Your task to perform on an android device: turn on translation in the chrome app Image 0: 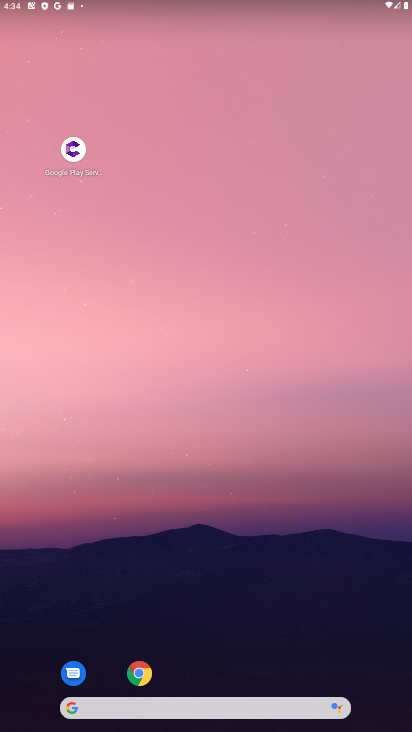
Step 0: drag from (284, 627) to (222, 42)
Your task to perform on an android device: turn on translation in the chrome app Image 1: 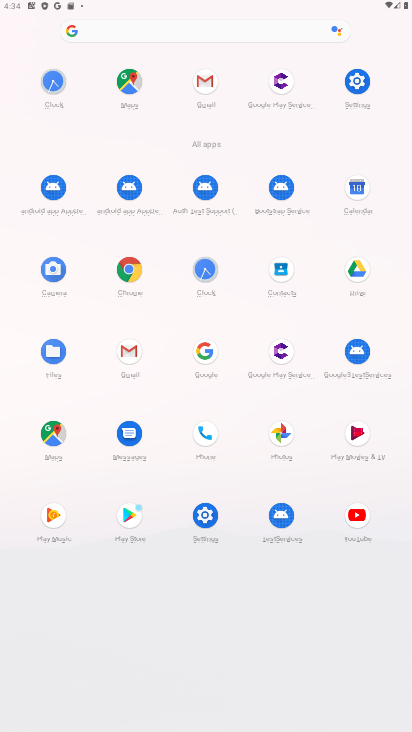
Step 1: click (126, 273)
Your task to perform on an android device: turn on translation in the chrome app Image 2: 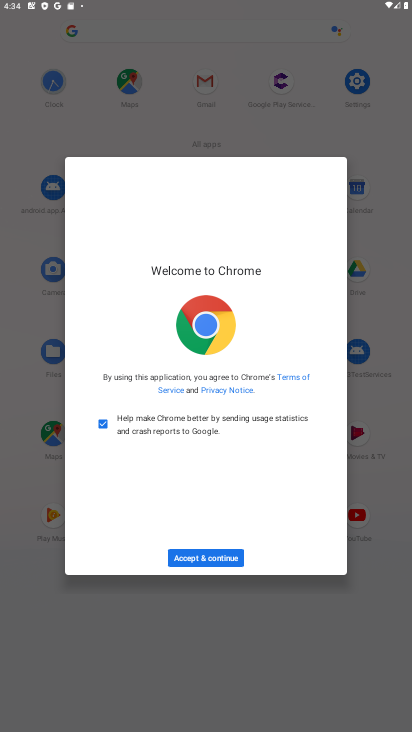
Step 2: click (223, 551)
Your task to perform on an android device: turn on translation in the chrome app Image 3: 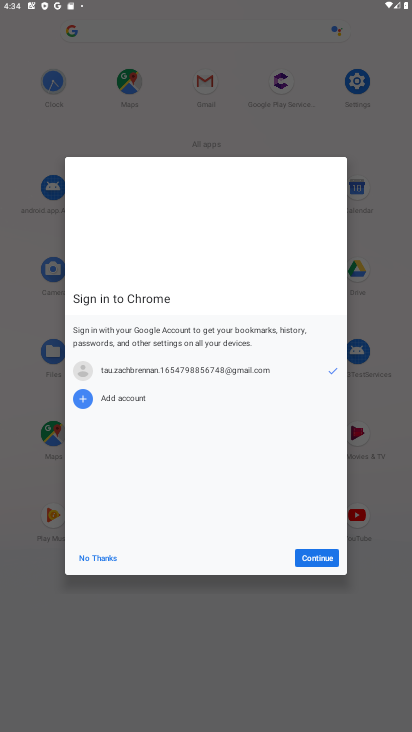
Step 3: click (328, 558)
Your task to perform on an android device: turn on translation in the chrome app Image 4: 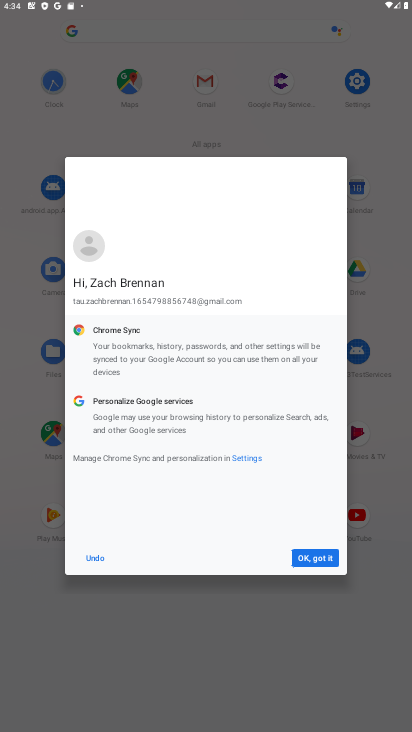
Step 4: click (320, 559)
Your task to perform on an android device: turn on translation in the chrome app Image 5: 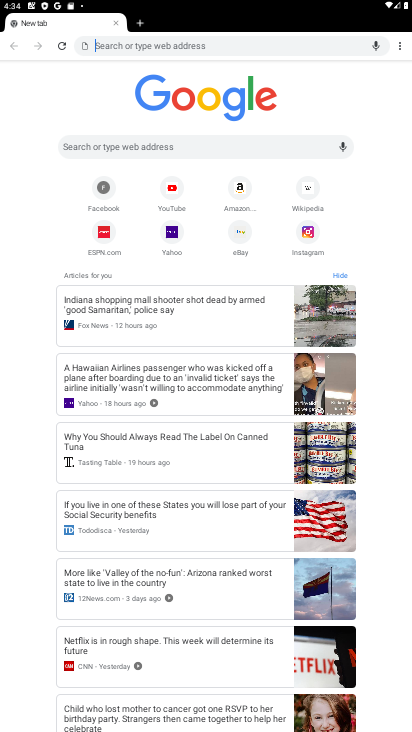
Step 5: click (402, 45)
Your task to perform on an android device: turn on translation in the chrome app Image 6: 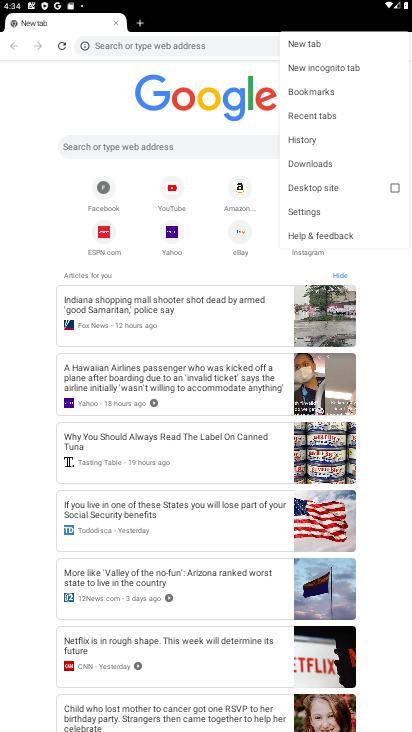
Step 6: click (326, 210)
Your task to perform on an android device: turn on translation in the chrome app Image 7: 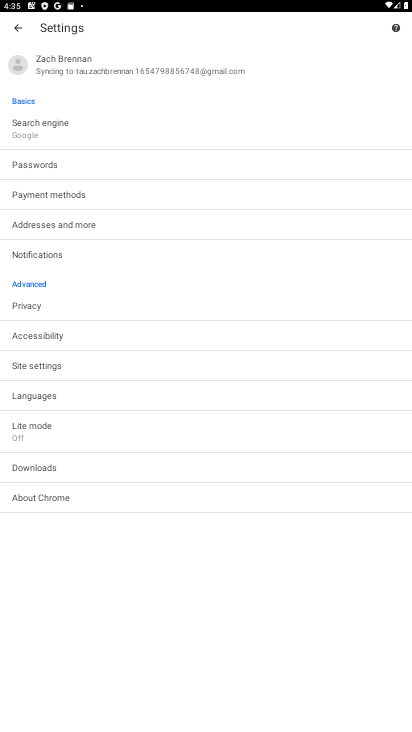
Step 7: click (139, 386)
Your task to perform on an android device: turn on translation in the chrome app Image 8: 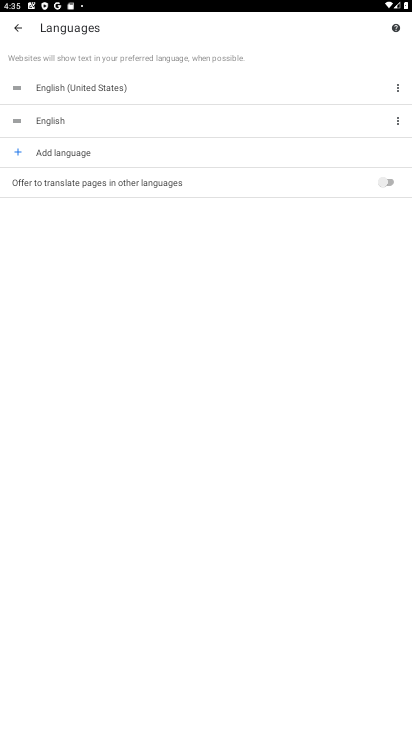
Step 8: click (390, 186)
Your task to perform on an android device: turn on translation in the chrome app Image 9: 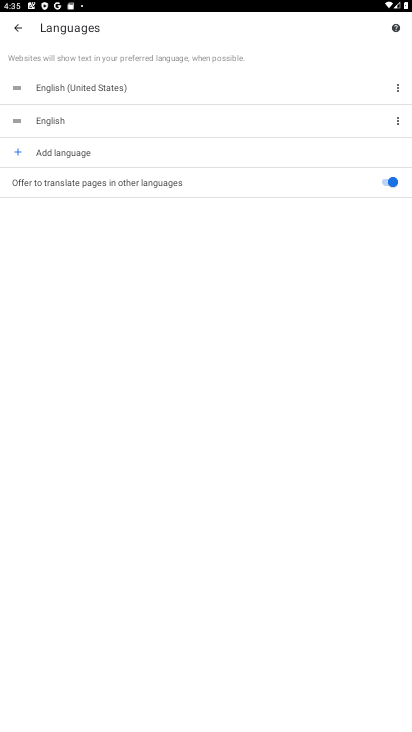
Step 9: task complete